Your task to perform on an android device: turn off wifi Image 0: 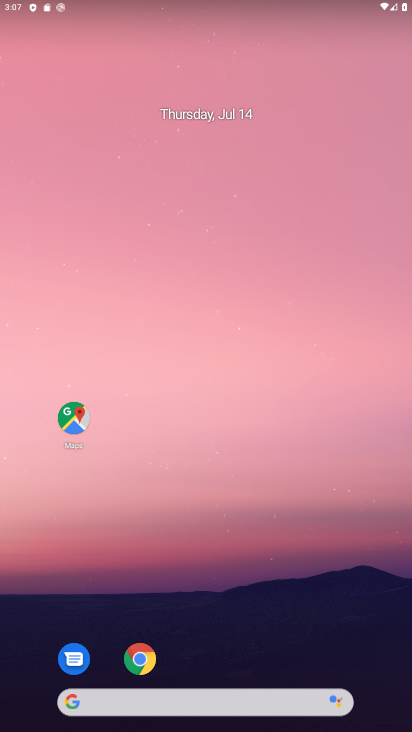
Step 0: drag from (269, 599) to (273, 44)
Your task to perform on an android device: turn off wifi Image 1: 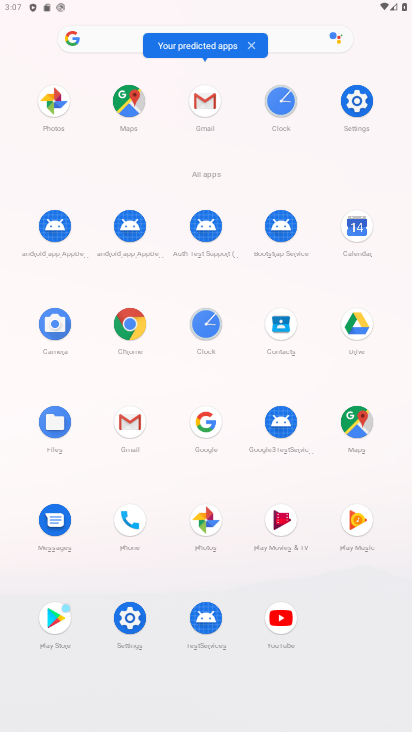
Step 1: click (354, 102)
Your task to perform on an android device: turn off wifi Image 2: 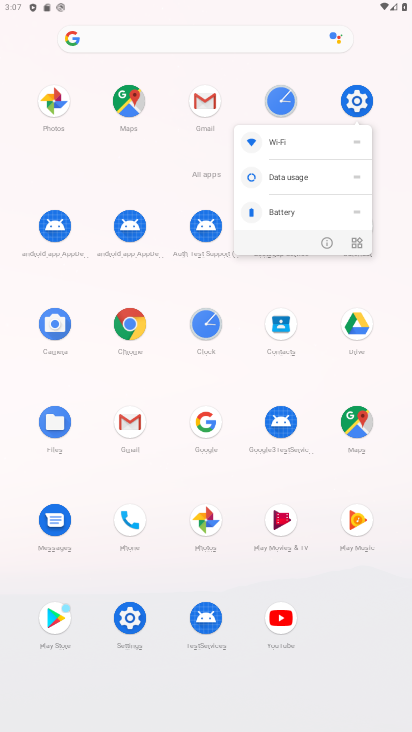
Step 2: click (354, 100)
Your task to perform on an android device: turn off wifi Image 3: 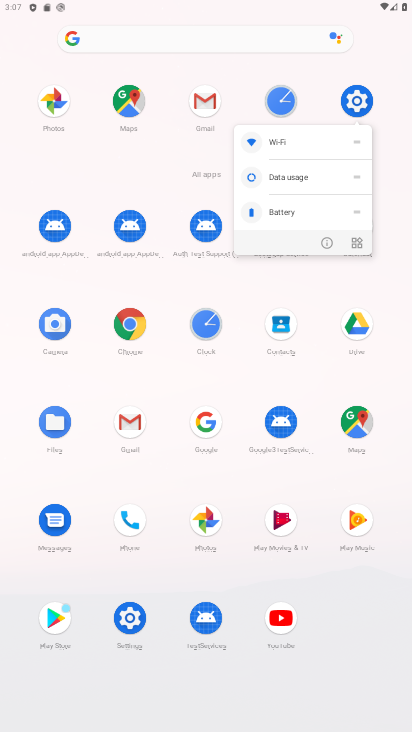
Step 3: click (354, 97)
Your task to perform on an android device: turn off wifi Image 4: 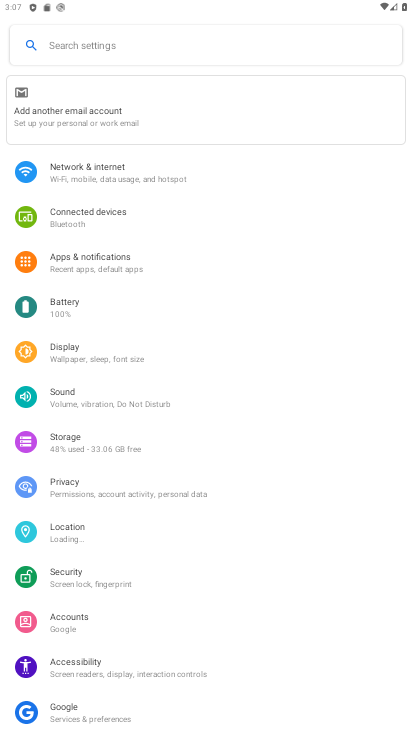
Step 4: click (86, 349)
Your task to perform on an android device: turn off wifi Image 5: 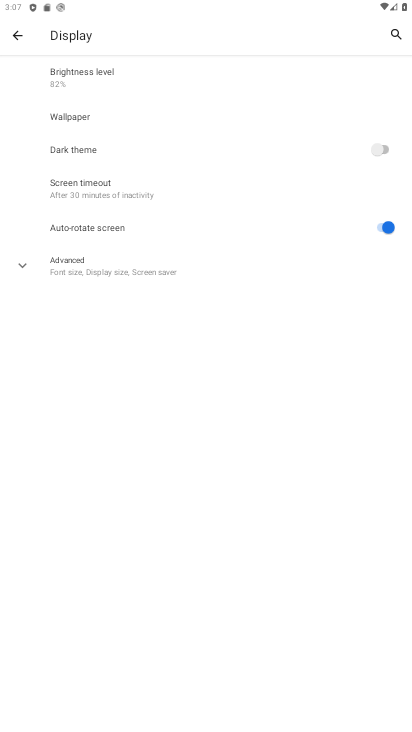
Step 5: click (18, 258)
Your task to perform on an android device: turn off wifi Image 6: 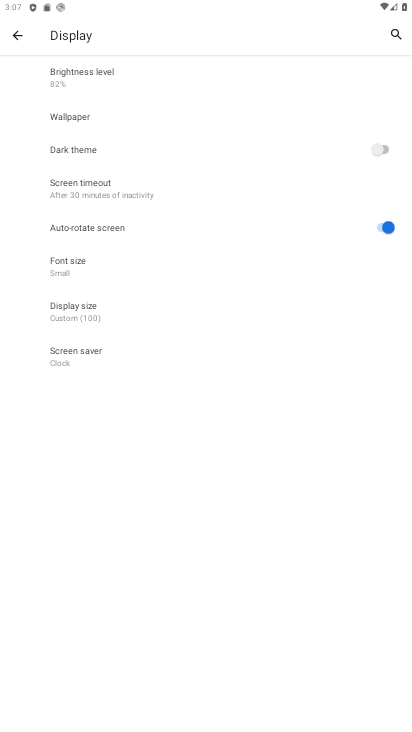
Step 6: click (67, 307)
Your task to perform on an android device: turn off wifi Image 7: 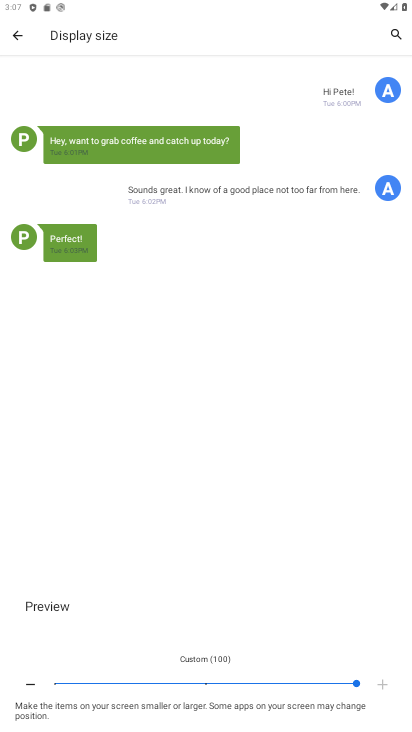
Step 7: click (31, 679)
Your task to perform on an android device: turn off wifi Image 8: 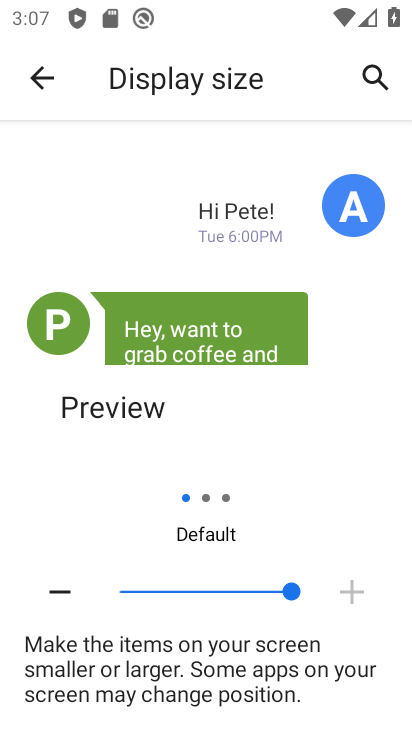
Step 8: click (60, 586)
Your task to perform on an android device: turn off wifi Image 9: 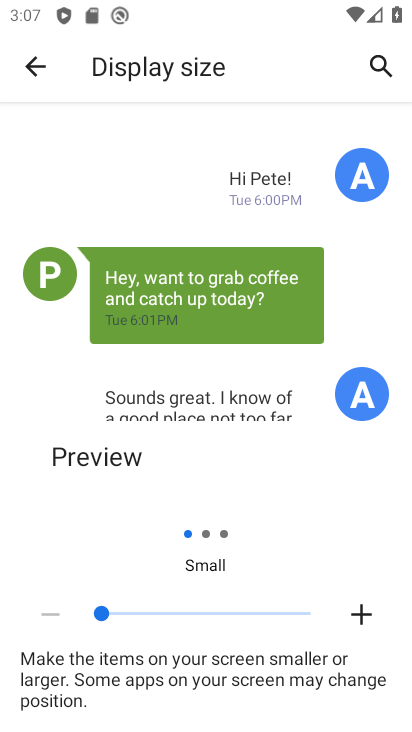
Step 9: click (34, 65)
Your task to perform on an android device: turn off wifi Image 10: 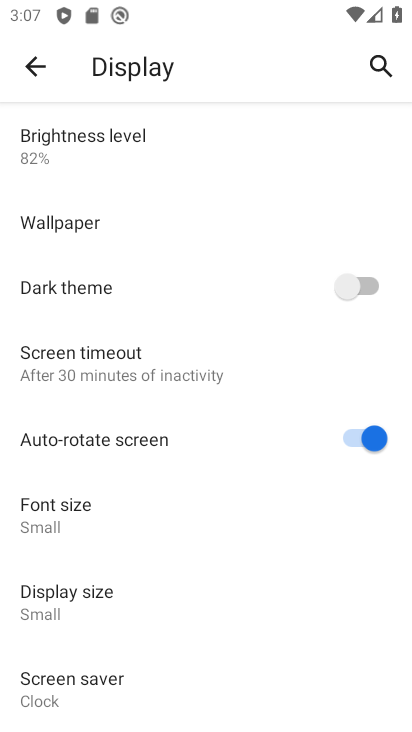
Step 10: click (34, 66)
Your task to perform on an android device: turn off wifi Image 11: 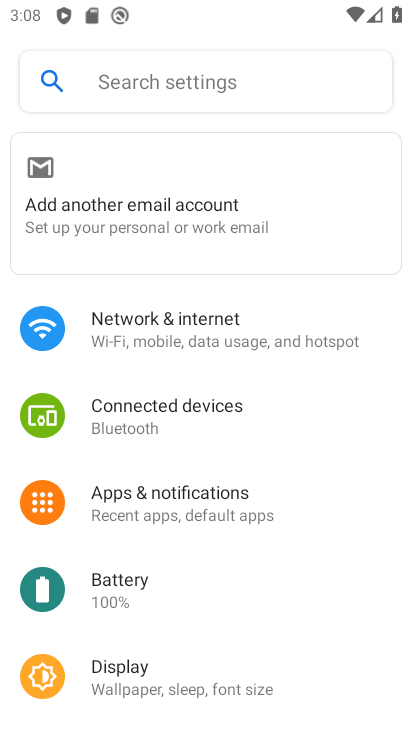
Step 11: click (239, 325)
Your task to perform on an android device: turn off wifi Image 12: 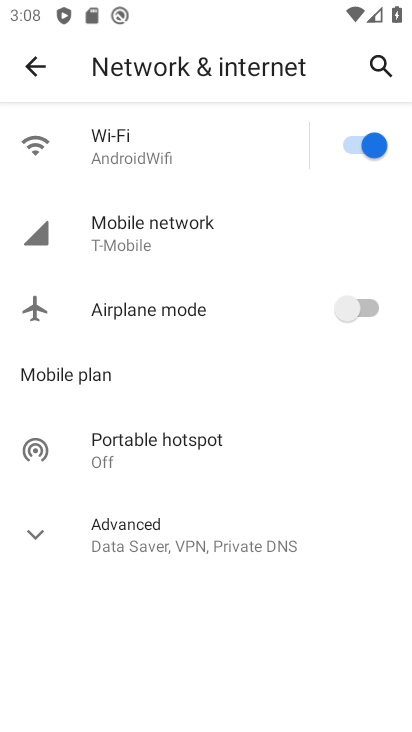
Step 12: click (357, 134)
Your task to perform on an android device: turn off wifi Image 13: 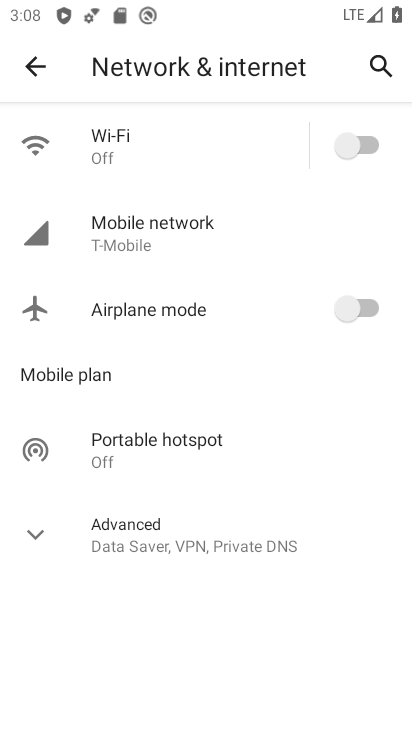
Step 13: task complete